Your task to perform on an android device: toggle pop-ups in chrome Image 0: 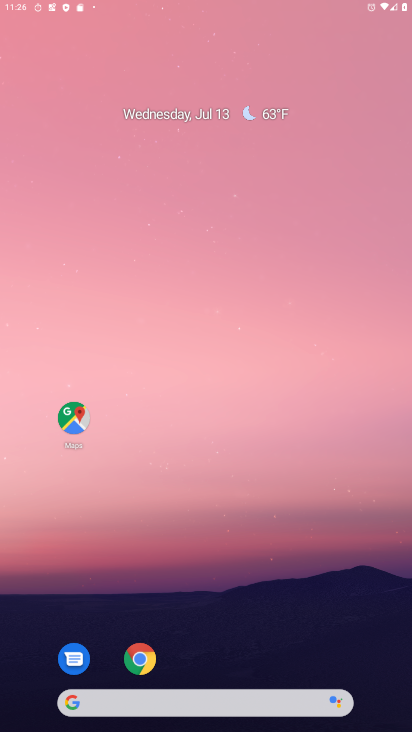
Step 0: click (330, 389)
Your task to perform on an android device: toggle pop-ups in chrome Image 1: 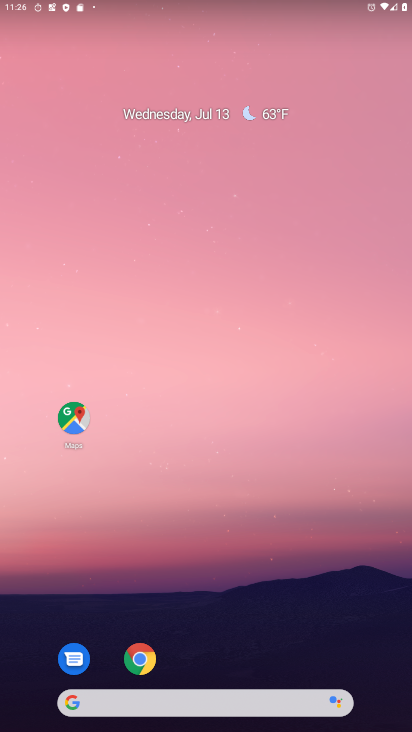
Step 1: drag from (225, 491) to (226, 162)
Your task to perform on an android device: toggle pop-ups in chrome Image 2: 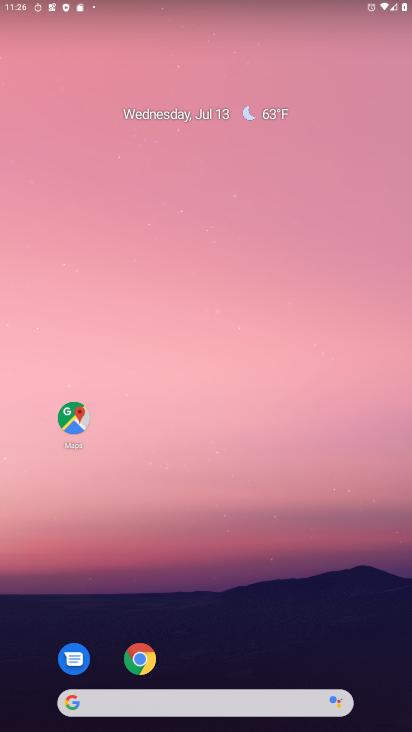
Step 2: drag from (237, 591) to (261, 12)
Your task to perform on an android device: toggle pop-ups in chrome Image 3: 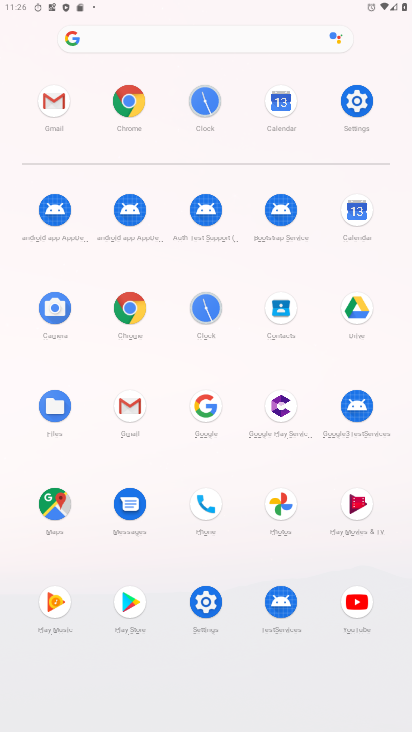
Step 3: click (119, 97)
Your task to perform on an android device: toggle pop-ups in chrome Image 4: 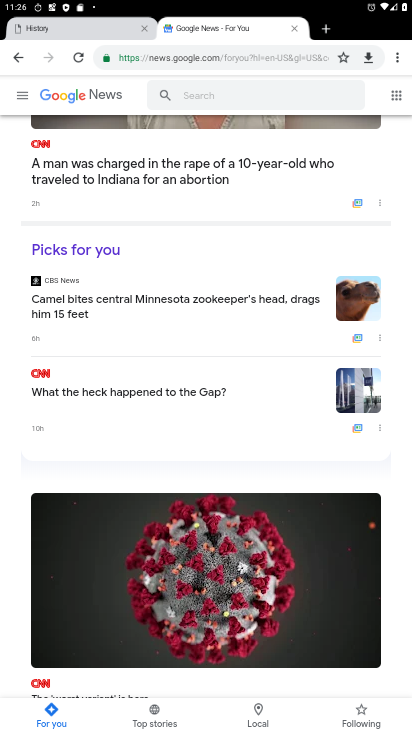
Step 4: drag from (396, 56) to (284, 380)
Your task to perform on an android device: toggle pop-ups in chrome Image 5: 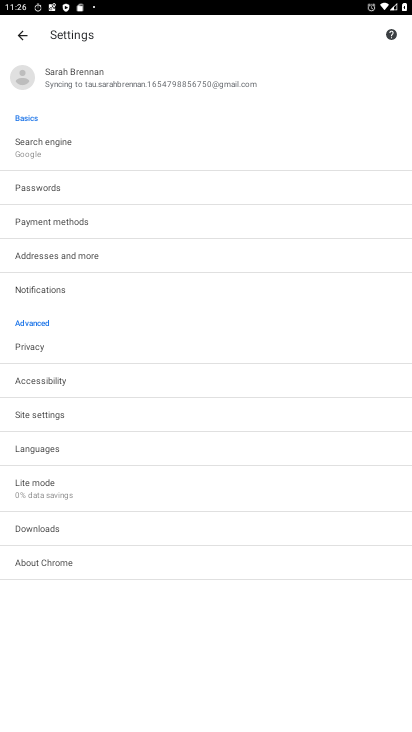
Step 5: click (60, 416)
Your task to perform on an android device: toggle pop-ups in chrome Image 6: 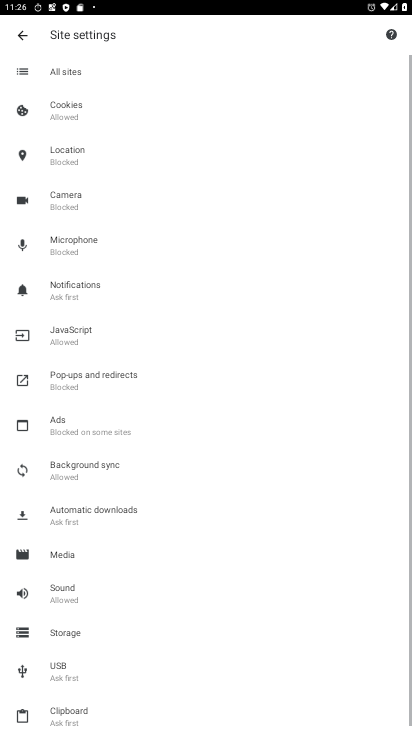
Step 6: click (92, 379)
Your task to perform on an android device: toggle pop-ups in chrome Image 7: 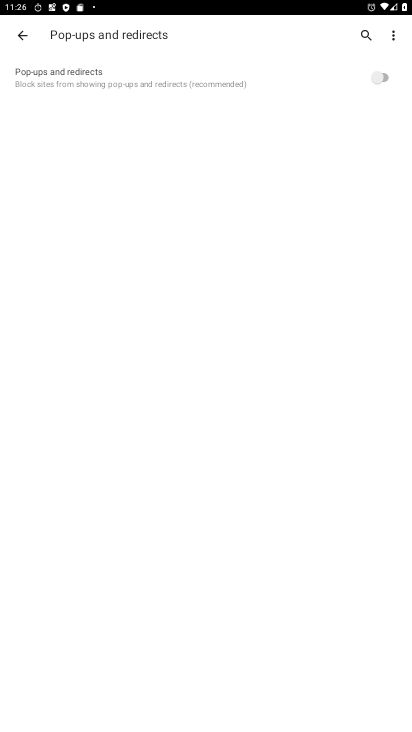
Step 7: click (377, 80)
Your task to perform on an android device: toggle pop-ups in chrome Image 8: 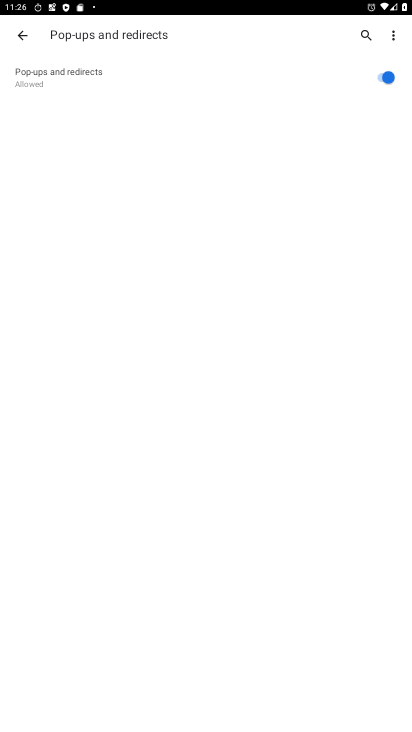
Step 8: task complete